Your task to perform on an android device: Go to Amazon Image 0: 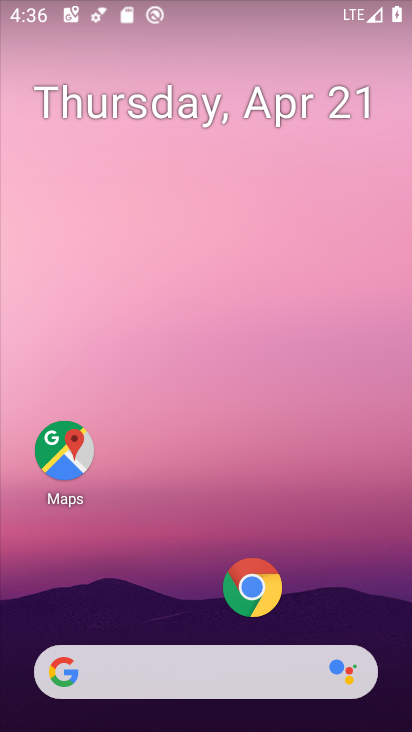
Step 0: click (247, 580)
Your task to perform on an android device: Go to Amazon Image 1: 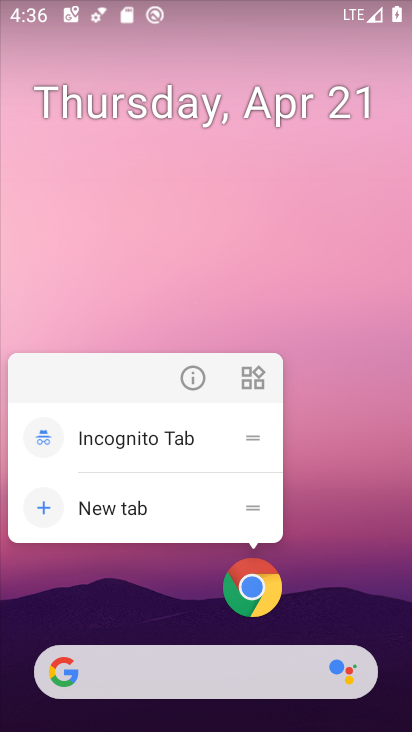
Step 1: click (251, 589)
Your task to perform on an android device: Go to Amazon Image 2: 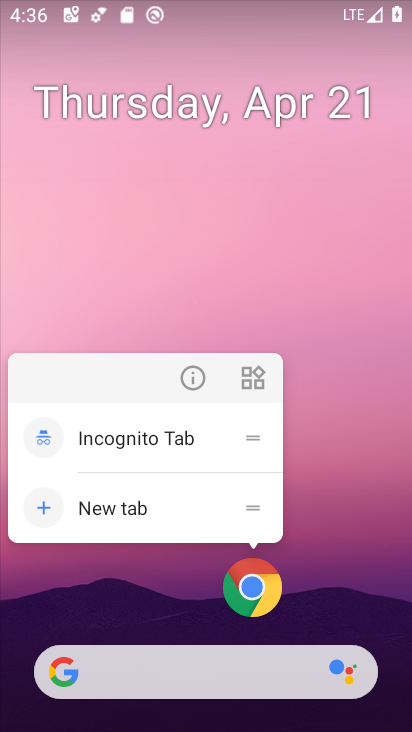
Step 2: click (252, 590)
Your task to perform on an android device: Go to Amazon Image 3: 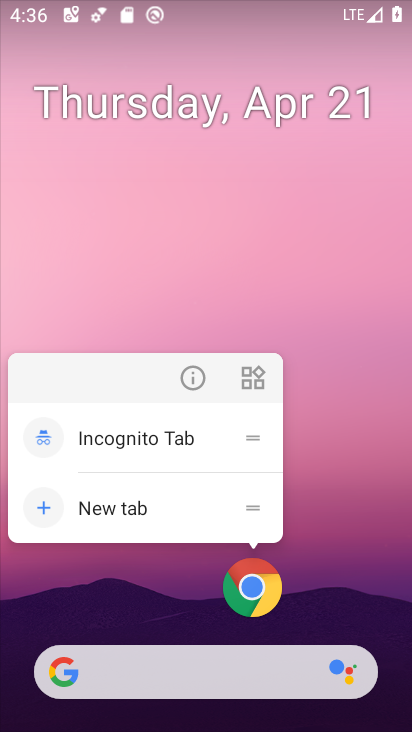
Step 3: click (257, 579)
Your task to perform on an android device: Go to Amazon Image 4: 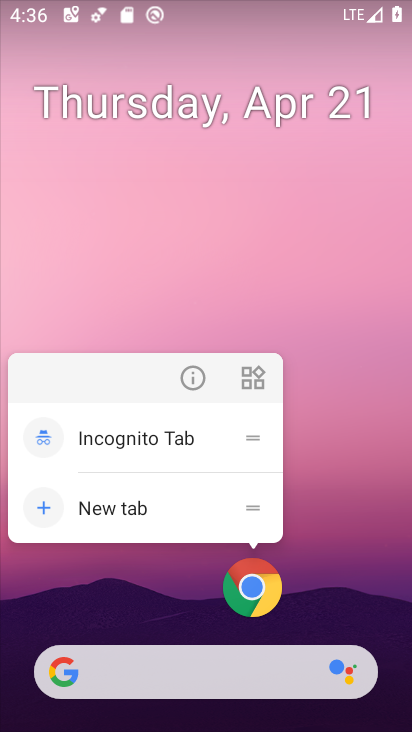
Step 4: click (260, 577)
Your task to perform on an android device: Go to Amazon Image 5: 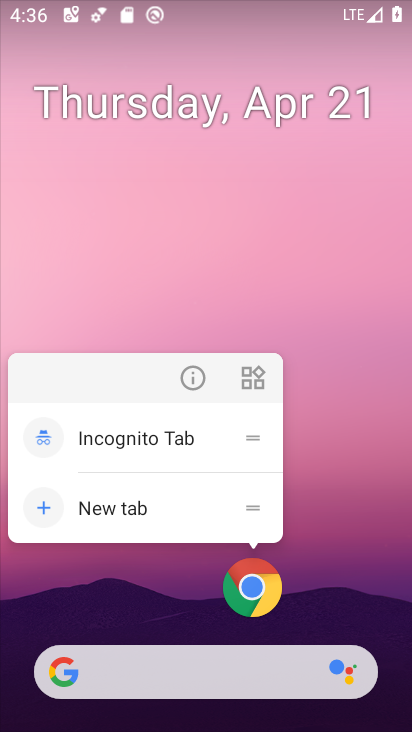
Step 5: click (257, 607)
Your task to perform on an android device: Go to Amazon Image 6: 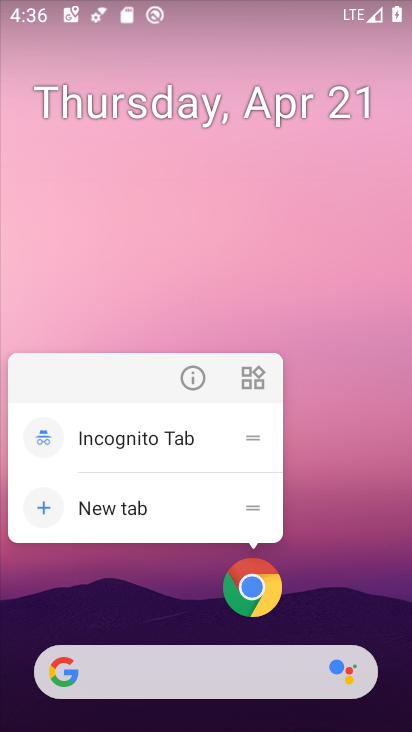
Step 6: click (262, 576)
Your task to perform on an android device: Go to Amazon Image 7: 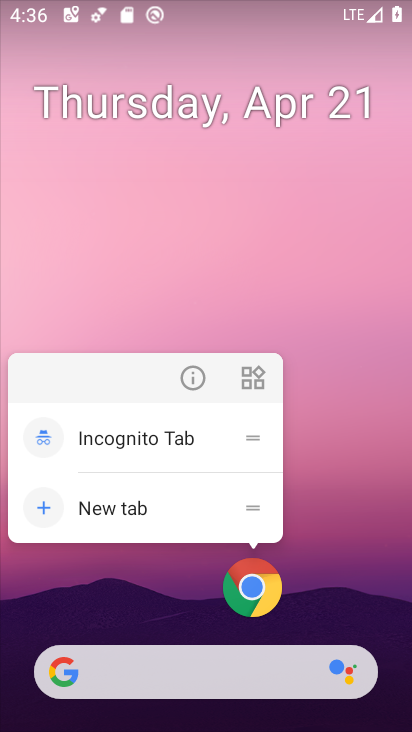
Step 7: click (257, 586)
Your task to perform on an android device: Go to Amazon Image 8: 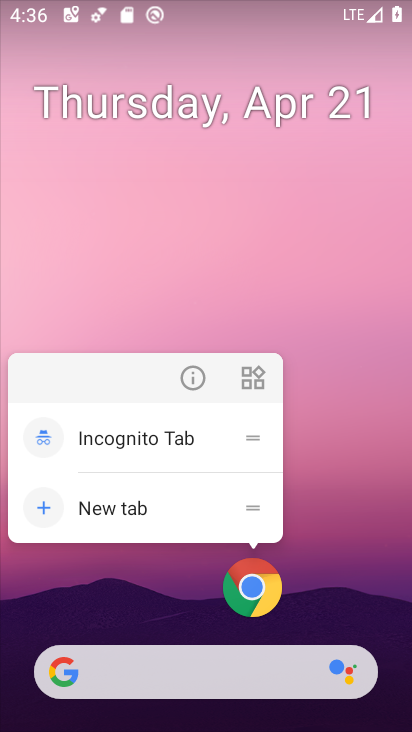
Step 8: click (258, 592)
Your task to perform on an android device: Go to Amazon Image 9: 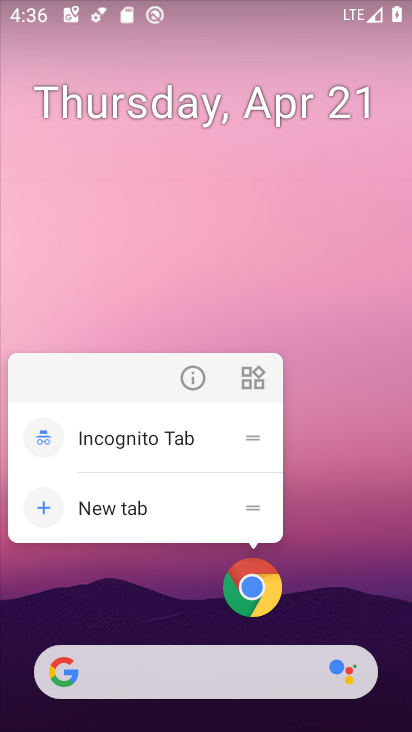
Step 9: click (255, 598)
Your task to perform on an android device: Go to Amazon Image 10: 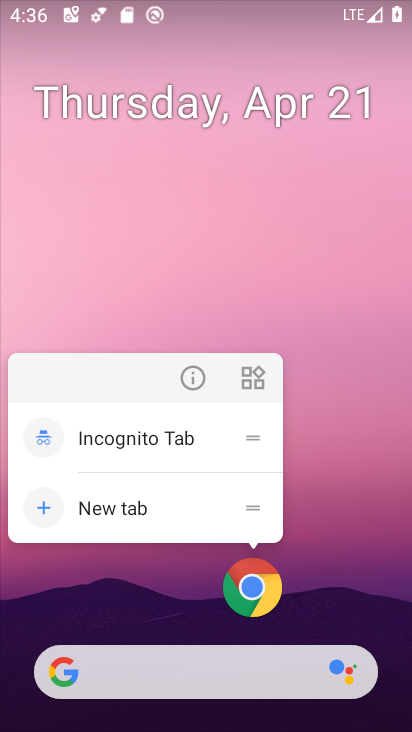
Step 10: click (256, 598)
Your task to perform on an android device: Go to Amazon Image 11: 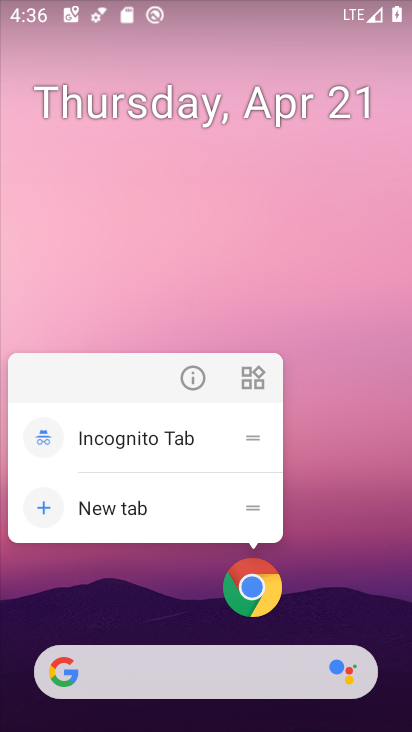
Step 11: click (273, 591)
Your task to perform on an android device: Go to Amazon Image 12: 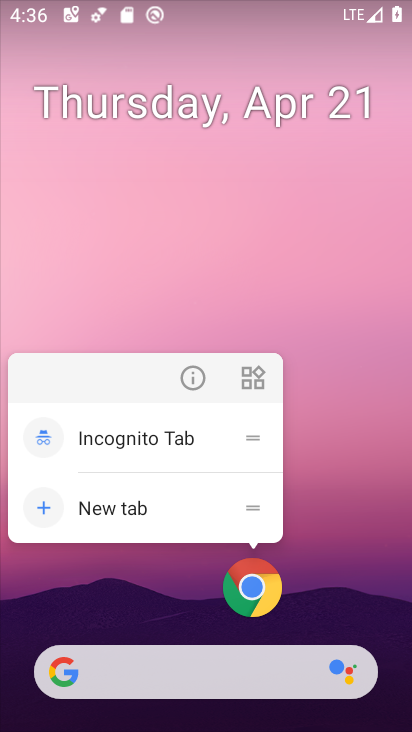
Step 12: click (249, 577)
Your task to perform on an android device: Go to Amazon Image 13: 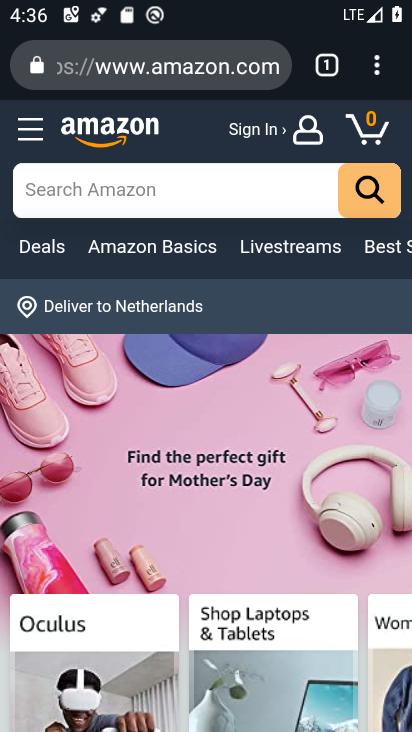
Step 13: task complete